Your task to perform on an android device: open app "Facebook Messenger" (install if not already installed) Image 0: 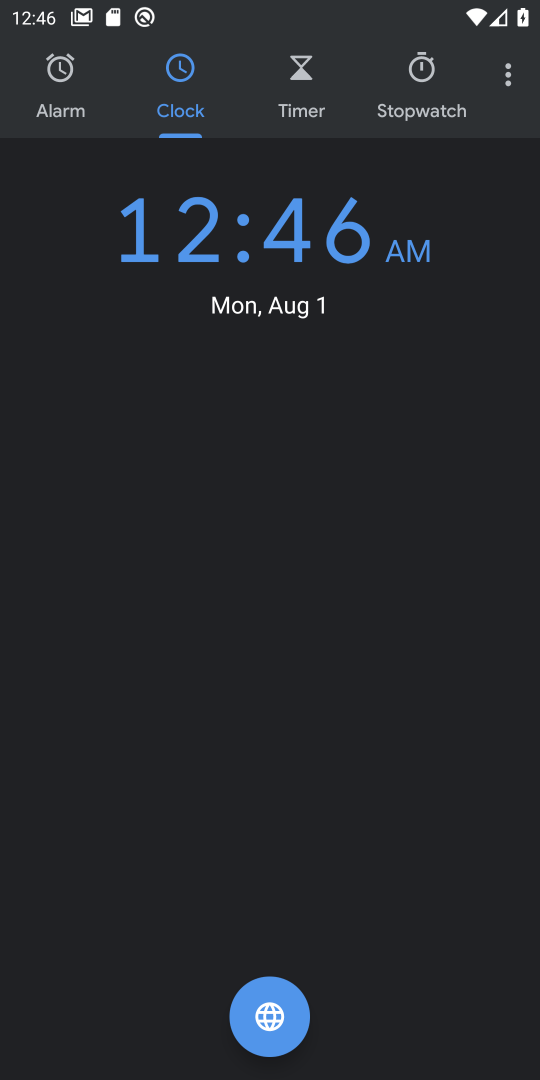
Step 0: press back button
Your task to perform on an android device: open app "Facebook Messenger" (install if not already installed) Image 1: 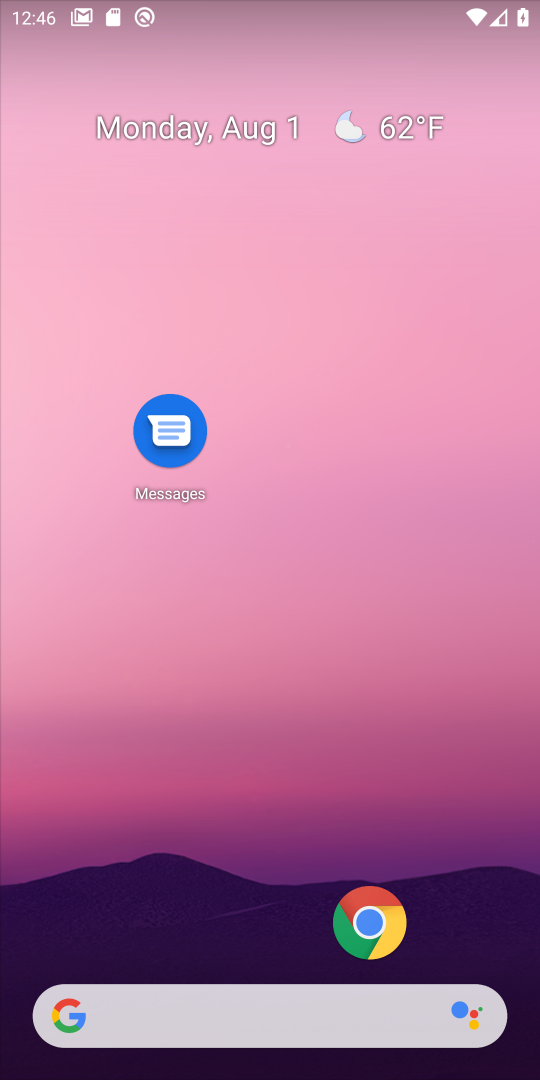
Step 1: drag from (257, 895) to (335, 326)
Your task to perform on an android device: open app "Facebook Messenger" (install if not already installed) Image 2: 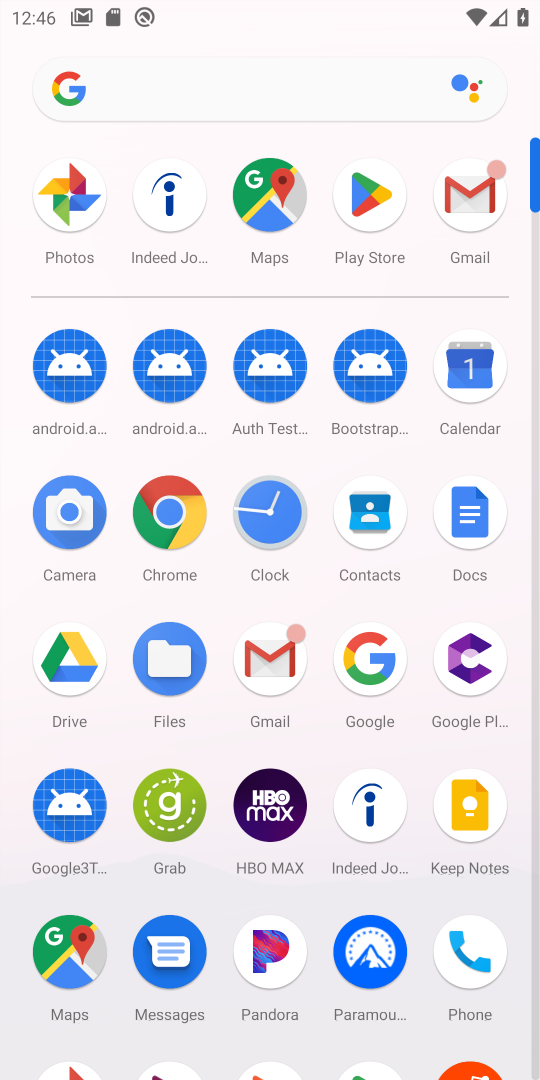
Step 2: click (362, 233)
Your task to perform on an android device: open app "Facebook Messenger" (install if not already installed) Image 3: 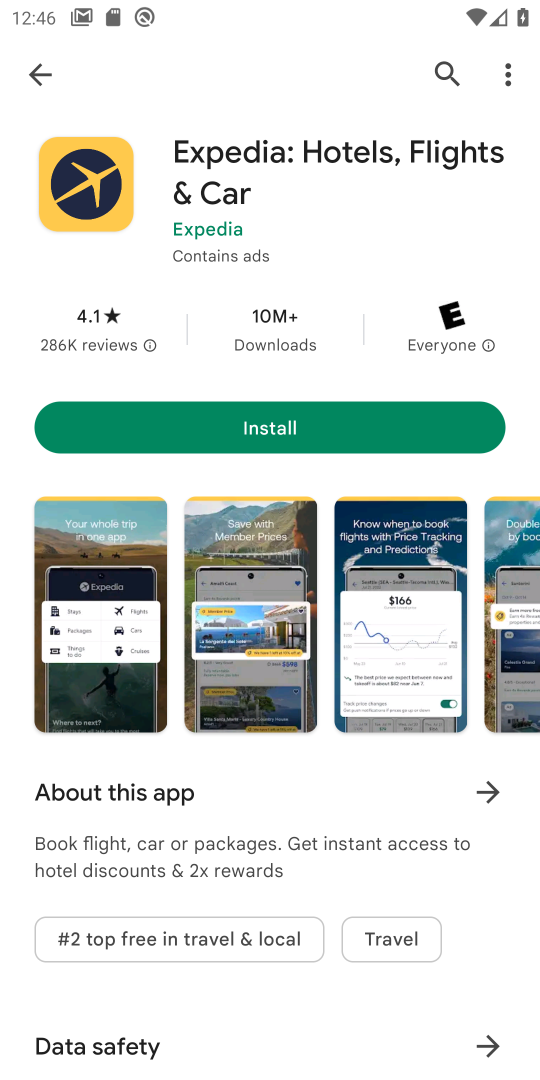
Step 3: click (441, 75)
Your task to perform on an android device: open app "Facebook Messenger" (install if not already installed) Image 4: 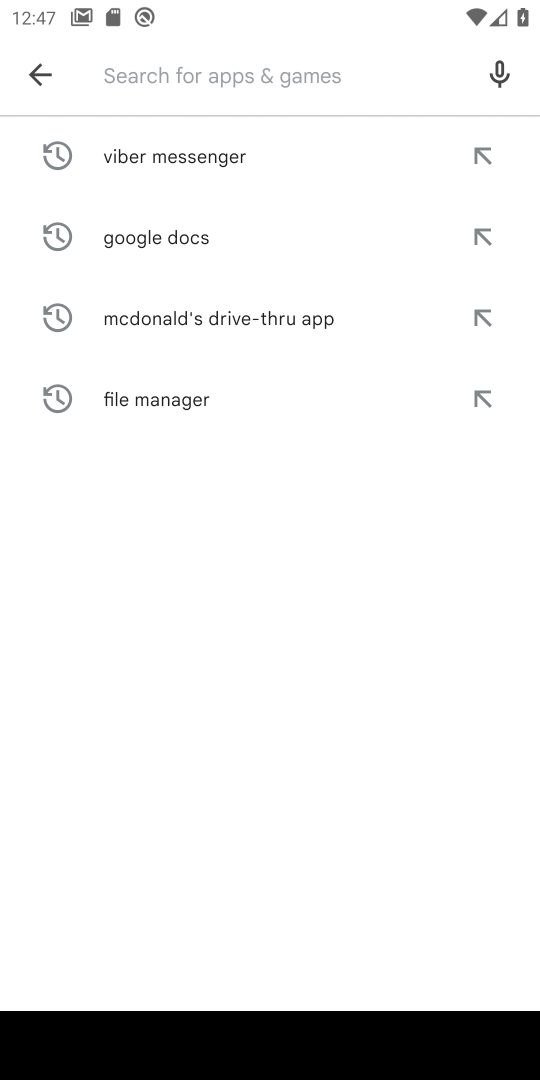
Step 4: type "Facebook Messenger"
Your task to perform on an android device: open app "Facebook Messenger" (install if not already installed) Image 5: 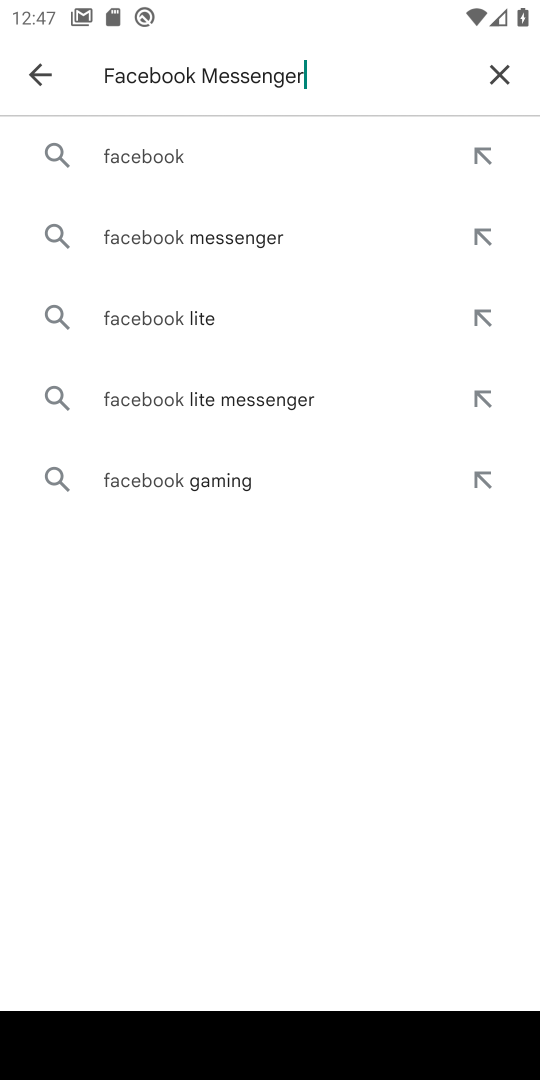
Step 5: type ""
Your task to perform on an android device: open app "Facebook Messenger" (install if not already installed) Image 6: 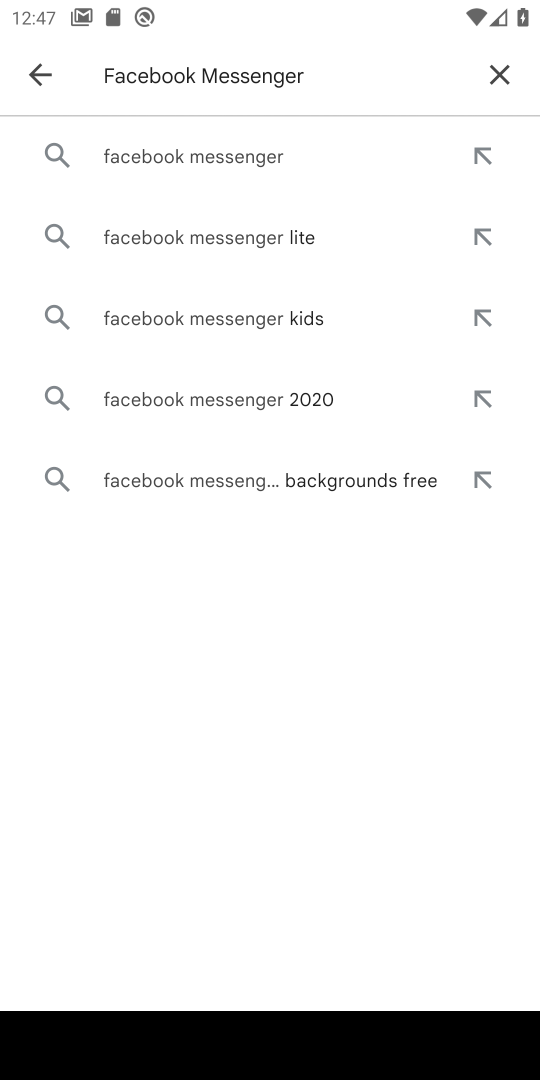
Step 6: click (258, 161)
Your task to perform on an android device: open app "Facebook Messenger" (install if not already installed) Image 7: 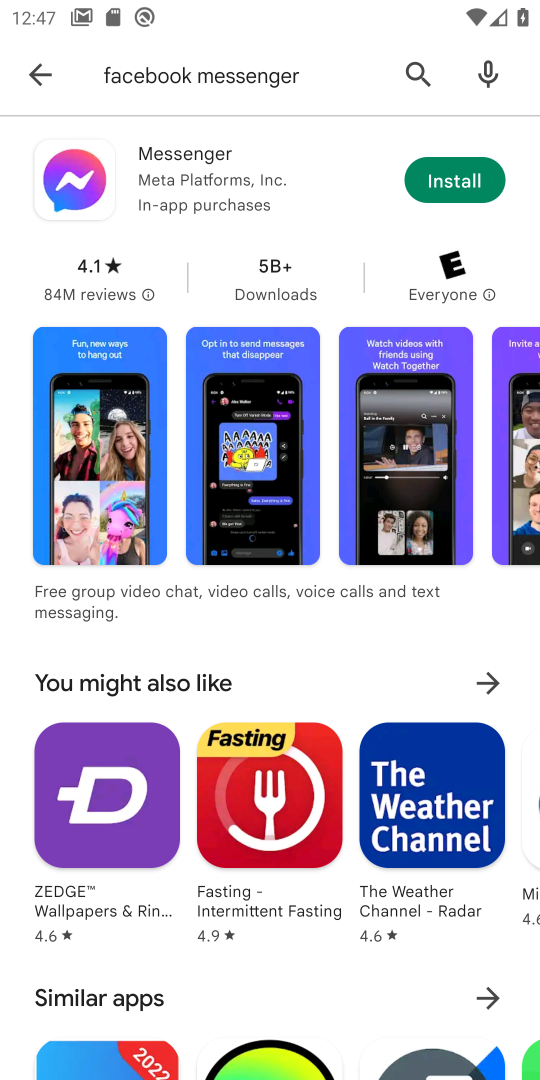
Step 7: click (443, 177)
Your task to perform on an android device: open app "Facebook Messenger" (install if not already installed) Image 8: 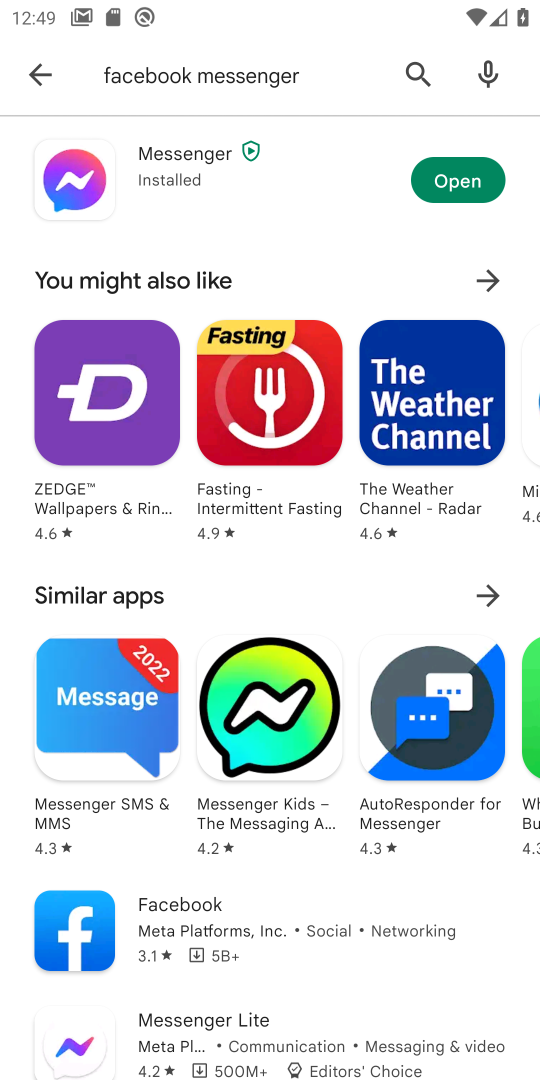
Step 8: click (440, 192)
Your task to perform on an android device: open app "Facebook Messenger" (install if not already installed) Image 9: 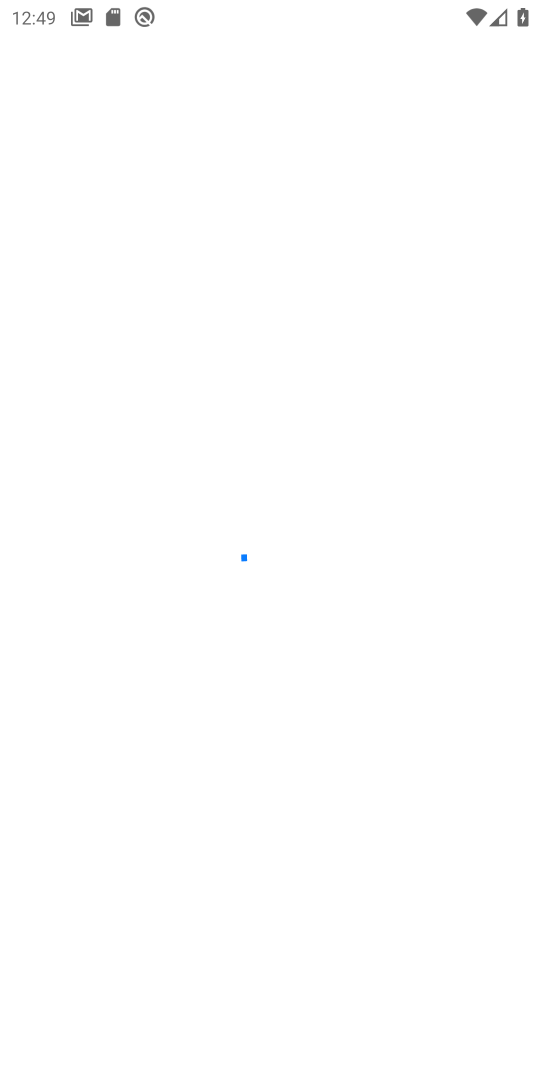
Step 9: task complete